Your task to perform on an android device: find snoozed emails in the gmail app Image 0: 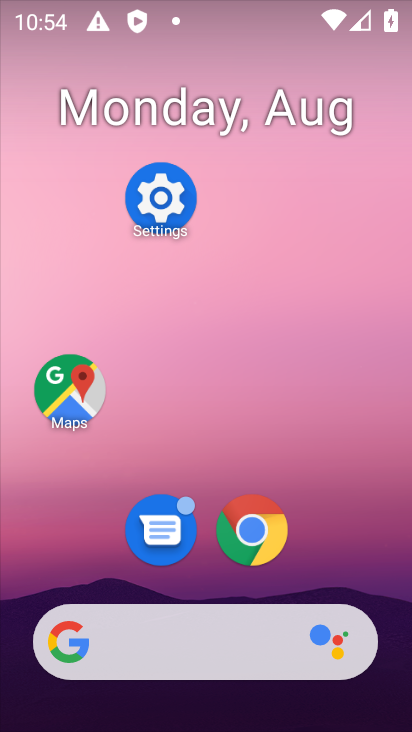
Step 0: drag from (231, 653) to (162, 195)
Your task to perform on an android device: find snoozed emails in the gmail app Image 1: 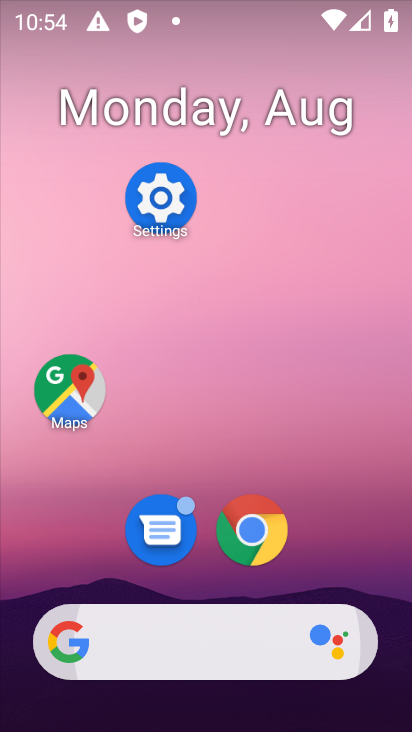
Step 1: drag from (248, 613) to (279, 183)
Your task to perform on an android device: find snoozed emails in the gmail app Image 2: 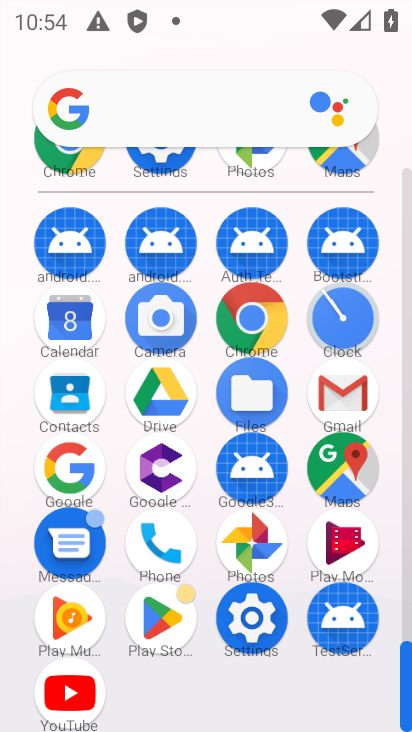
Step 2: click (339, 388)
Your task to perform on an android device: find snoozed emails in the gmail app Image 3: 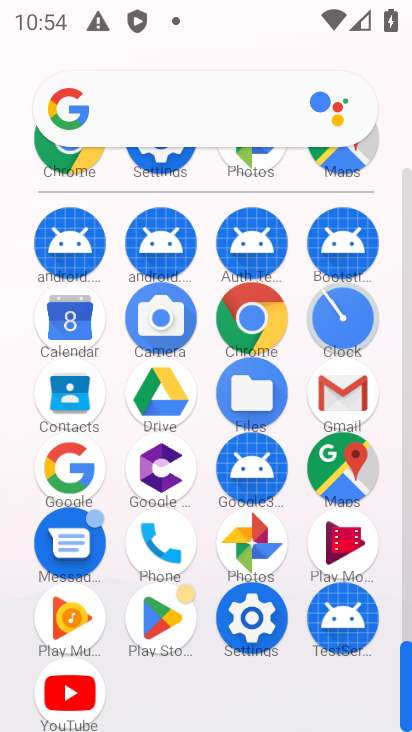
Step 3: click (337, 386)
Your task to perform on an android device: find snoozed emails in the gmail app Image 4: 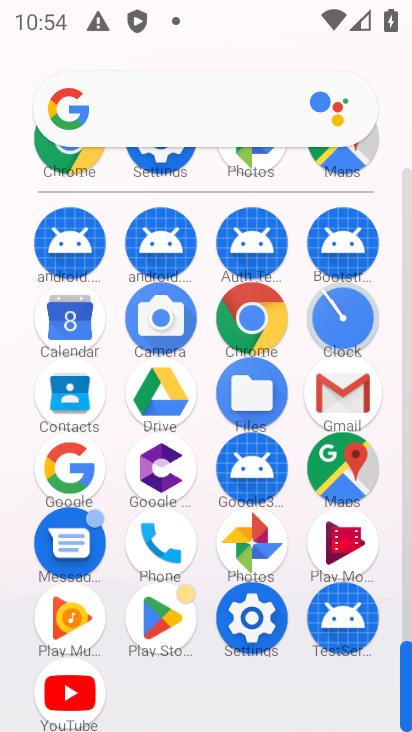
Step 4: click (336, 385)
Your task to perform on an android device: find snoozed emails in the gmail app Image 5: 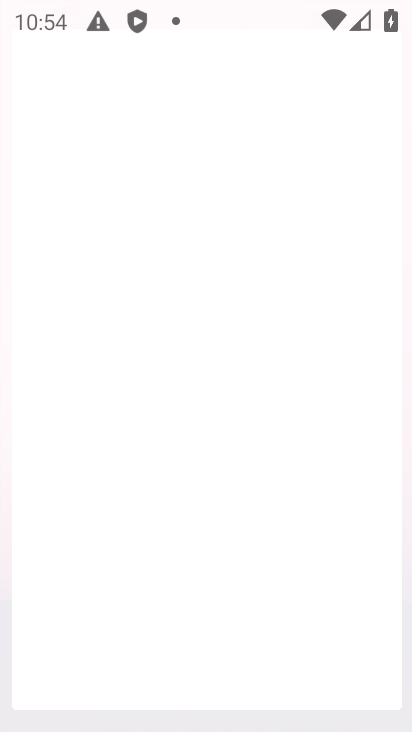
Step 5: click (337, 383)
Your task to perform on an android device: find snoozed emails in the gmail app Image 6: 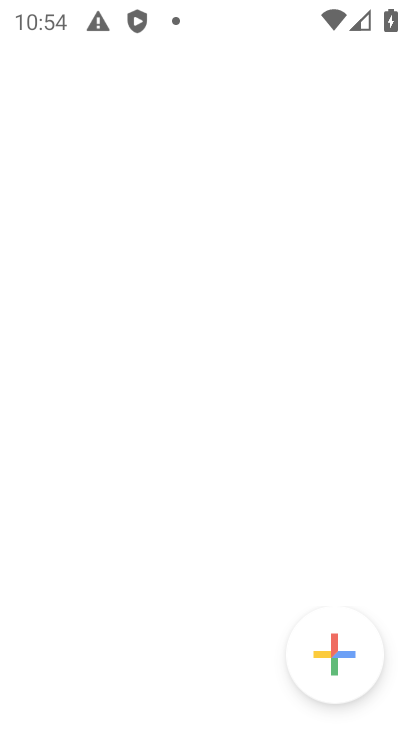
Step 6: click (338, 383)
Your task to perform on an android device: find snoozed emails in the gmail app Image 7: 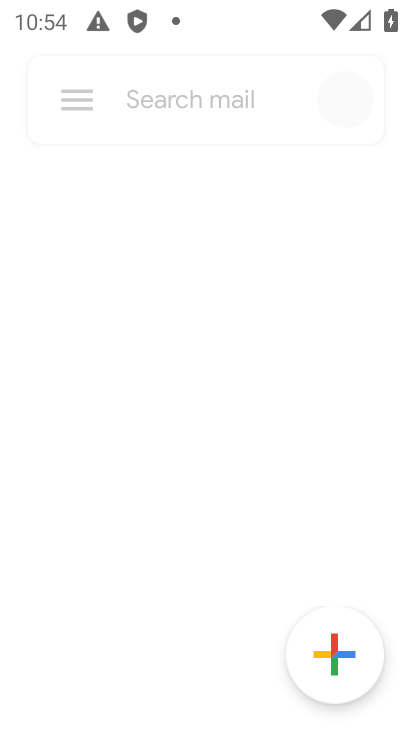
Step 7: click (340, 385)
Your task to perform on an android device: find snoozed emails in the gmail app Image 8: 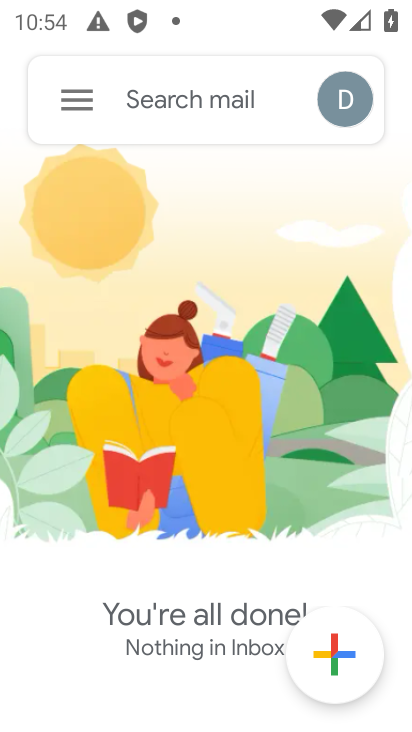
Step 8: click (87, 105)
Your task to perform on an android device: find snoozed emails in the gmail app Image 9: 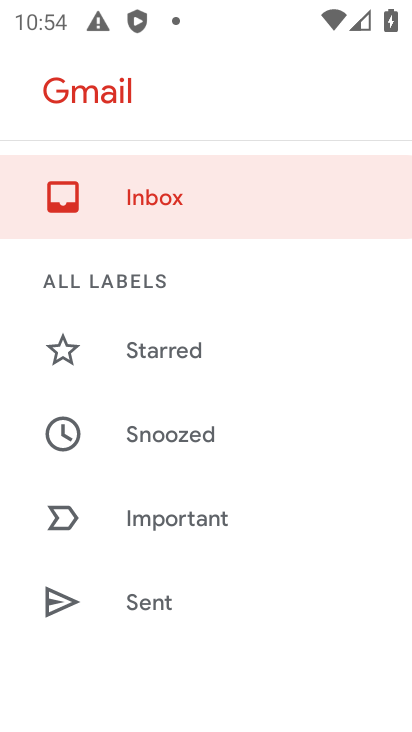
Step 9: click (173, 441)
Your task to perform on an android device: find snoozed emails in the gmail app Image 10: 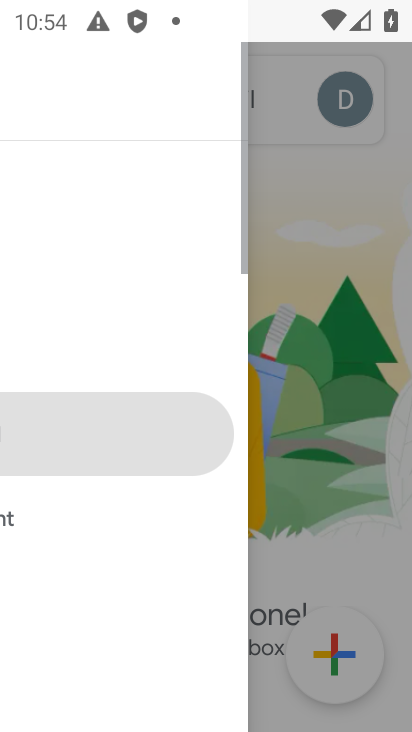
Step 10: click (178, 424)
Your task to perform on an android device: find snoozed emails in the gmail app Image 11: 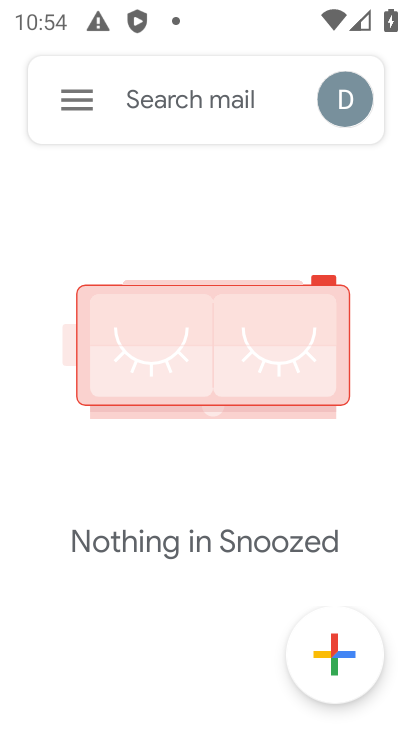
Step 11: task complete